Your task to perform on an android device: Open the calendar and show me this week's events? Image 0: 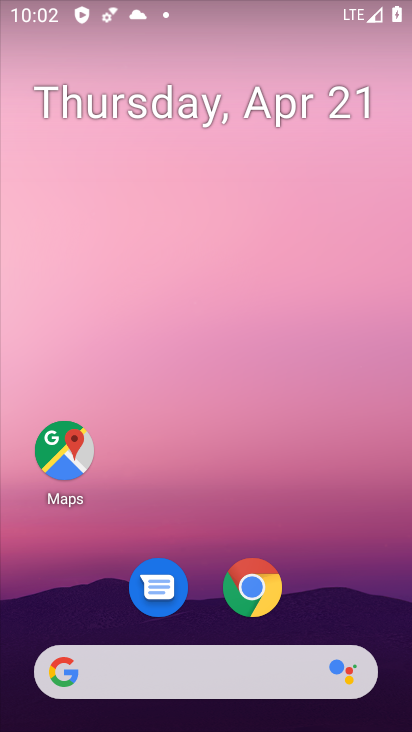
Step 0: press home button
Your task to perform on an android device: Open the calendar and show me this week's events? Image 1: 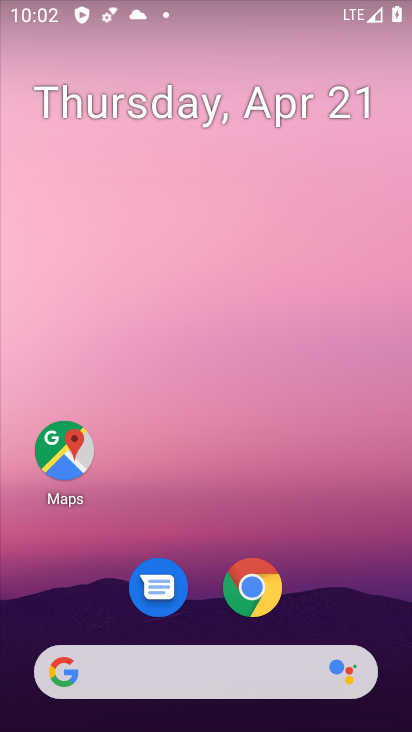
Step 1: drag from (347, 571) to (350, 108)
Your task to perform on an android device: Open the calendar and show me this week's events? Image 2: 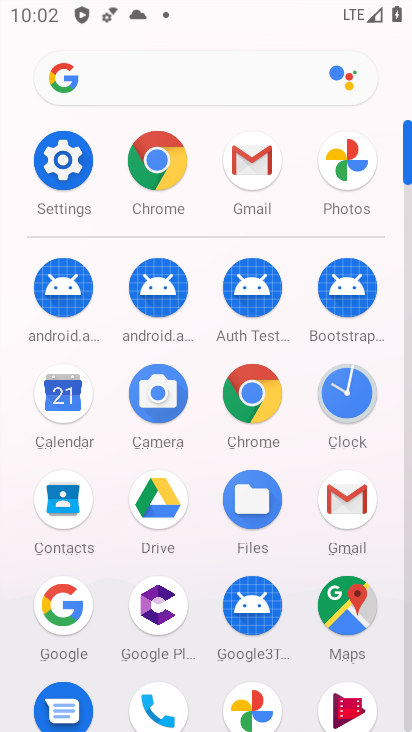
Step 2: click (106, 377)
Your task to perform on an android device: Open the calendar and show me this week's events? Image 3: 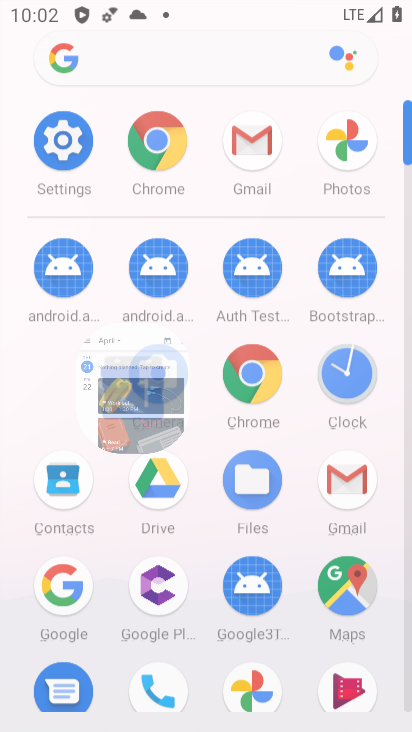
Step 3: click (61, 412)
Your task to perform on an android device: Open the calendar and show me this week's events? Image 4: 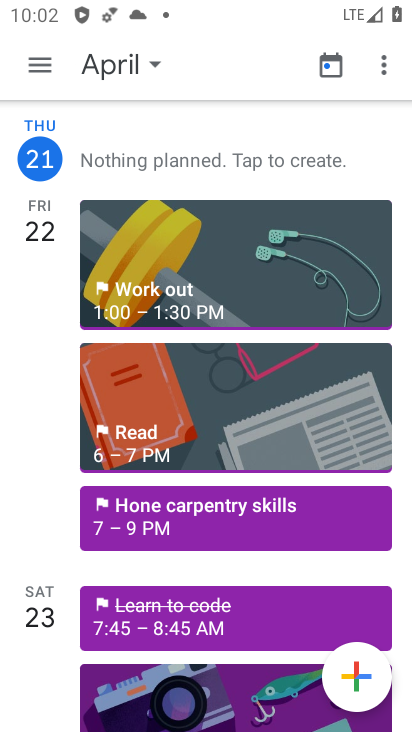
Step 4: task complete